Your task to perform on an android device: Go to display settings Image 0: 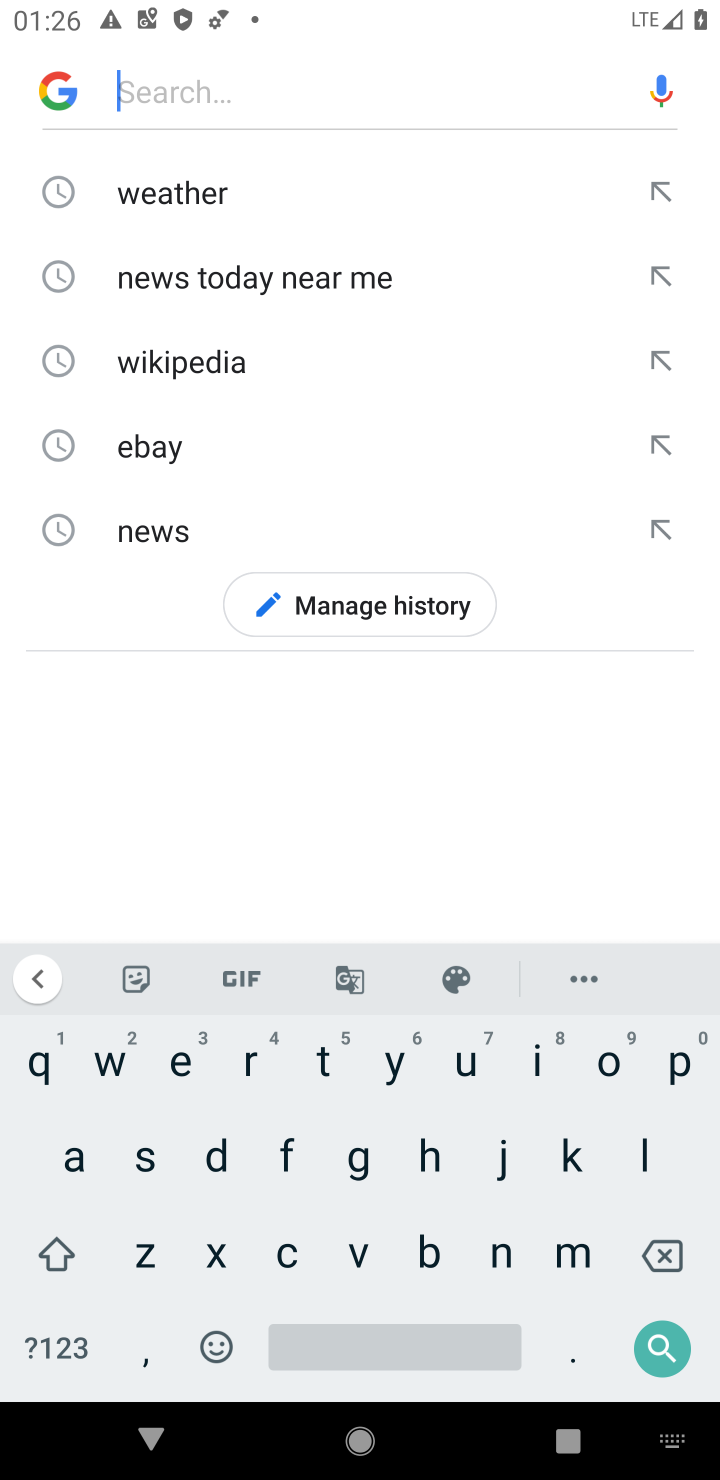
Step 0: click (156, 1461)
Your task to perform on an android device: Go to display settings Image 1: 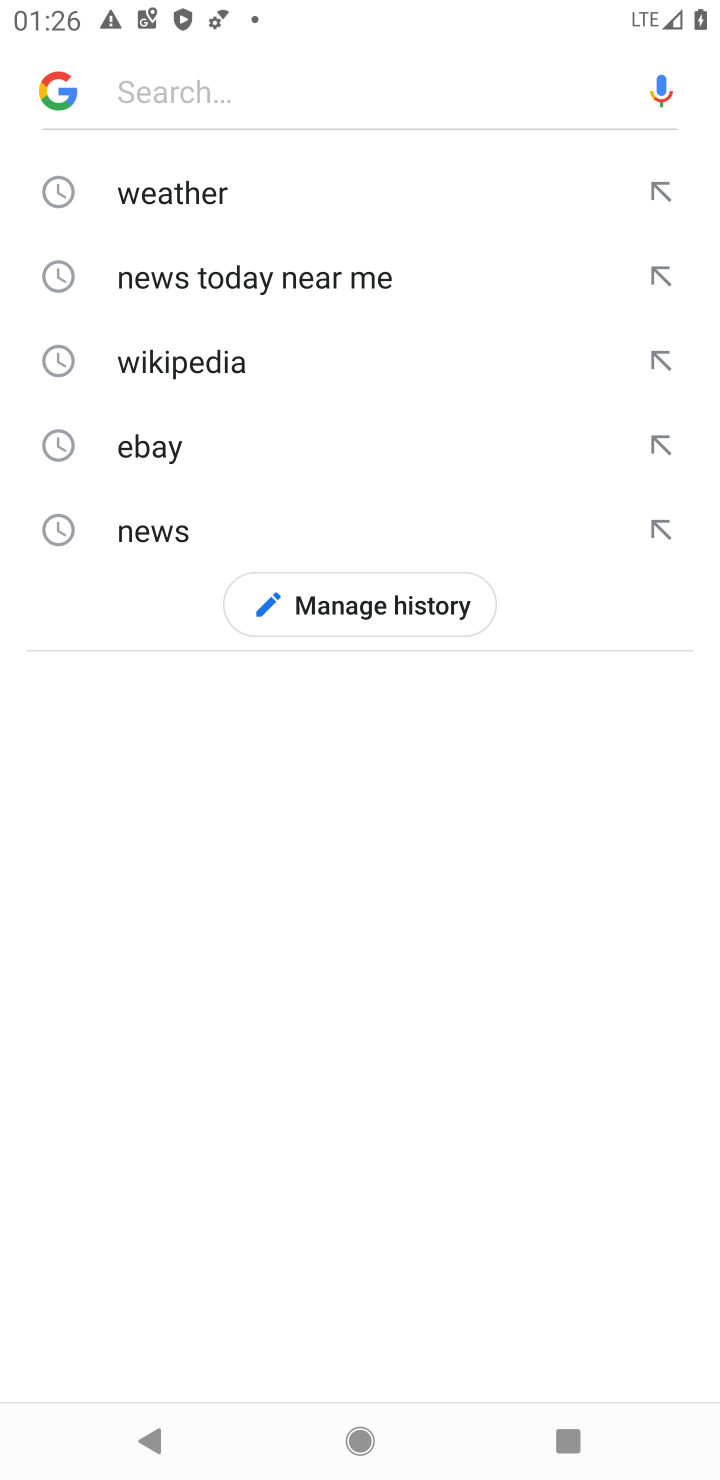
Step 1: click (156, 1461)
Your task to perform on an android device: Go to display settings Image 2: 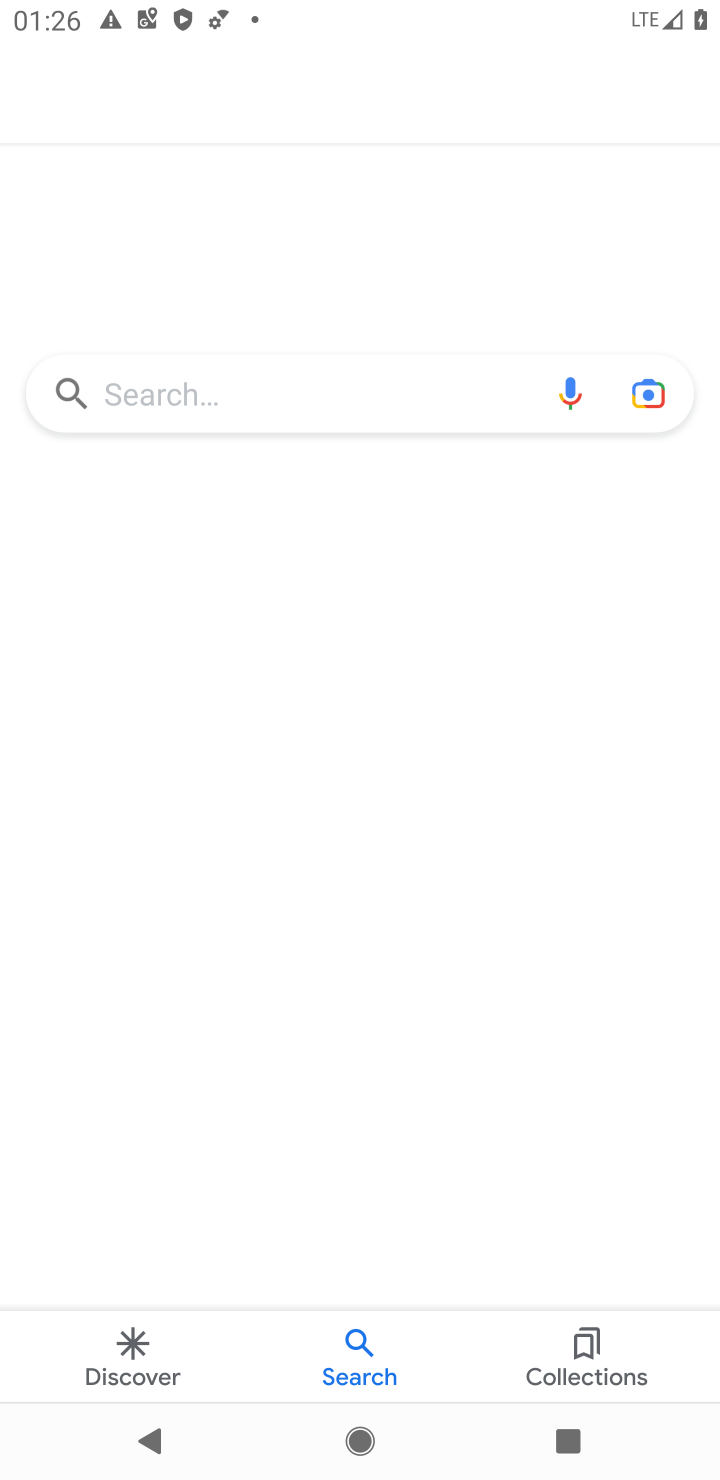
Step 2: click (168, 1425)
Your task to perform on an android device: Go to display settings Image 3: 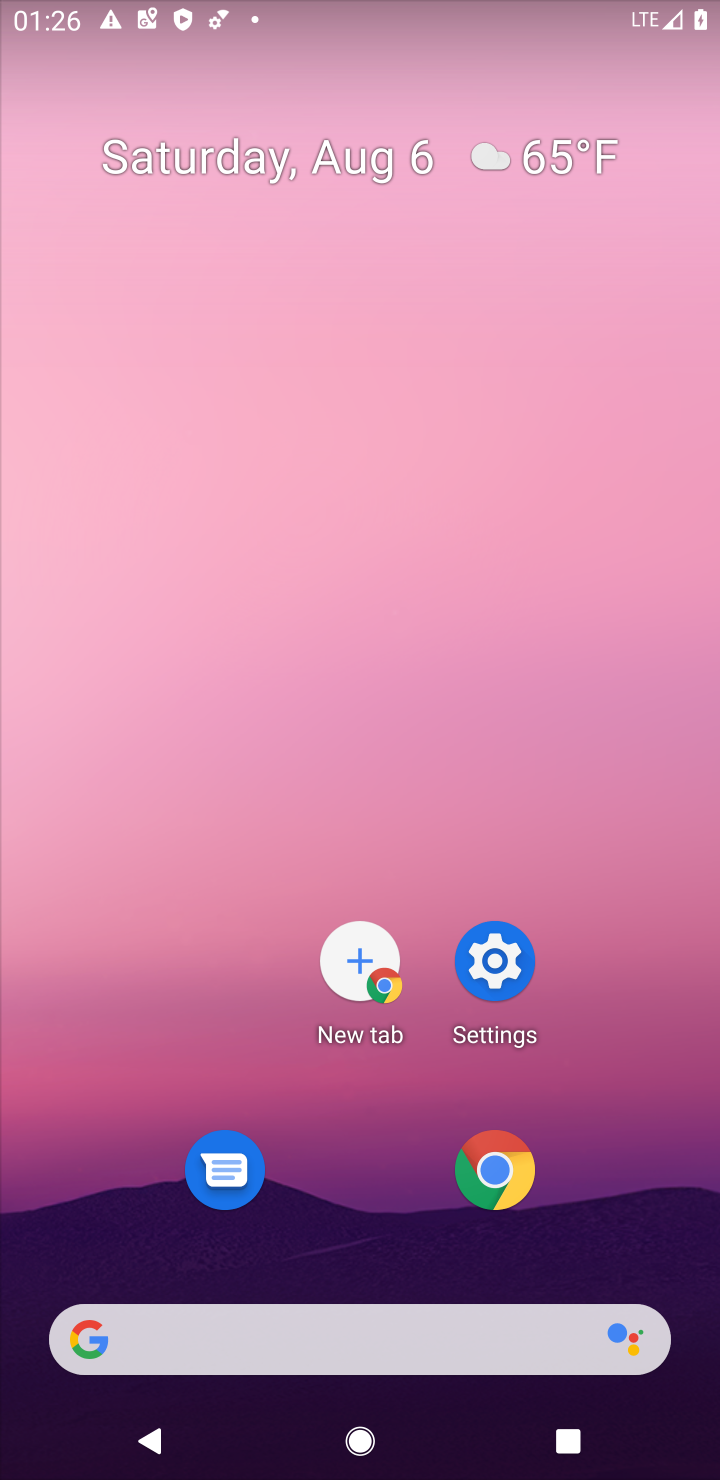
Step 3: click (508, 969)
Your task to perform on an android device: Go to display settings Image 4: 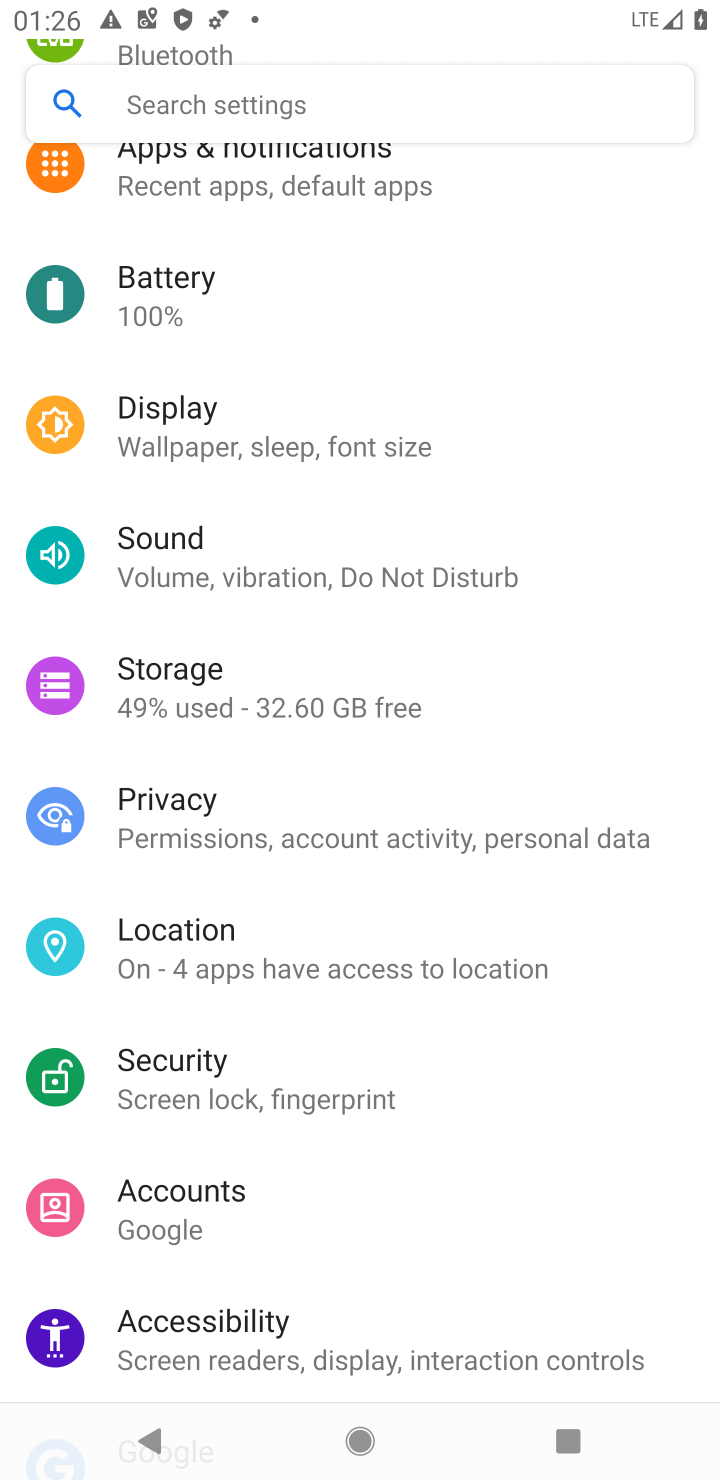
Step 4: click (271, 423)
Your task to perform on an android device: Go to display settings Image 5: 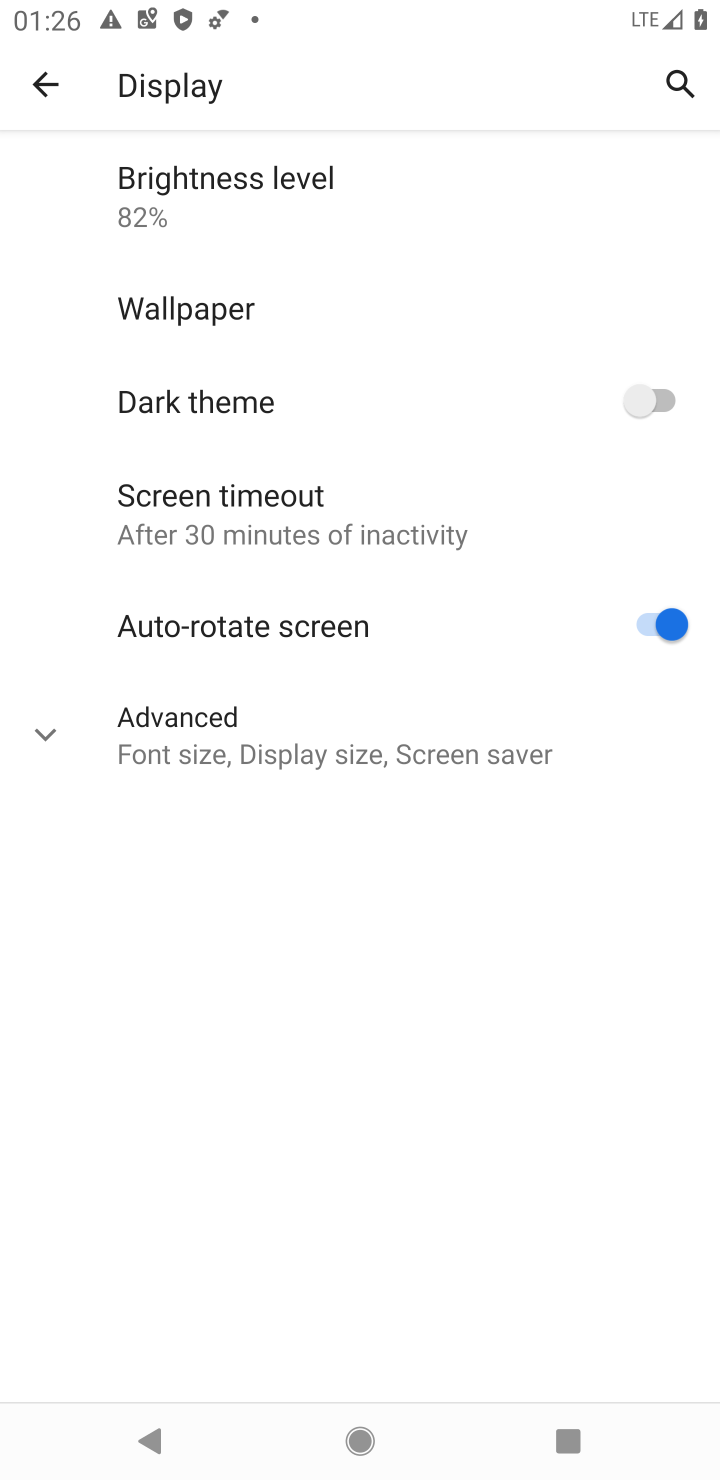
Step 5: task complete